Your task to perform on an android device: turn off location Image 0: 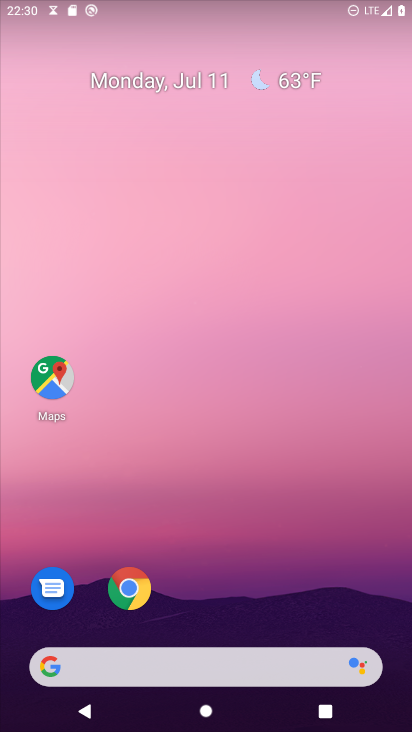
Step 0: press home button
Your task to perform on an android device: turn off location Image 1: 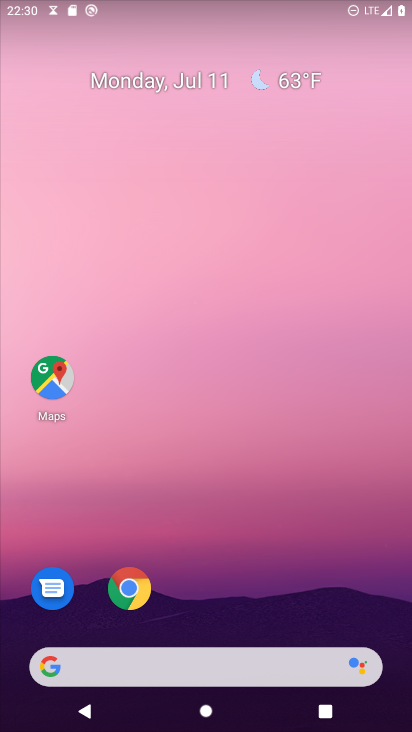
Step 1: drag from (202, 600) to (274, 27)
Your task to perform on an android device: turn off location Image 2: 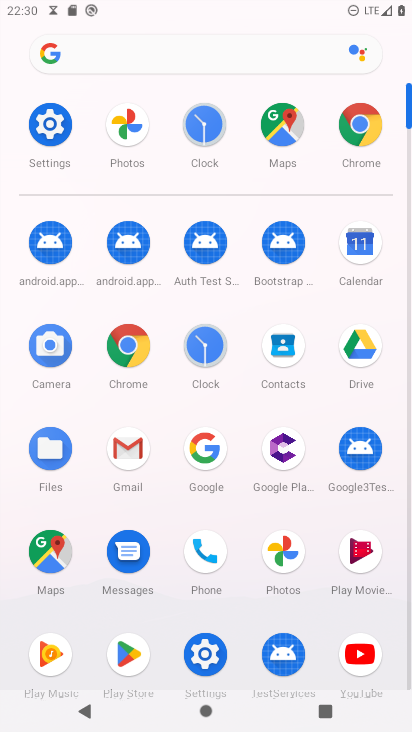
Step 2: click (57, 125)
Your task to perform on an android device: turn off location Image 3: 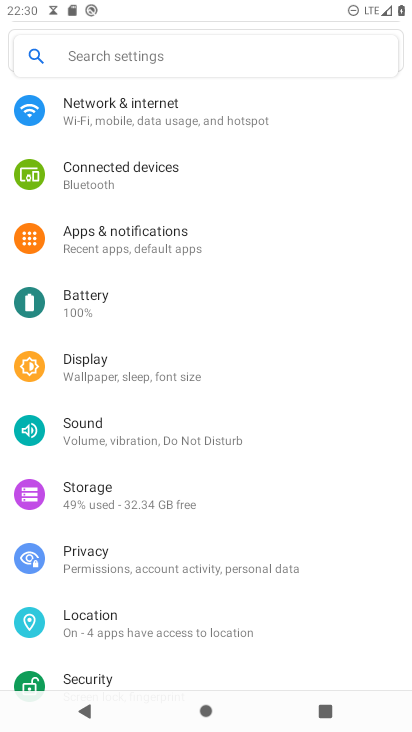
Step 3: click (106, 633)
Your task to perform on an android device: turn off location Image 4: 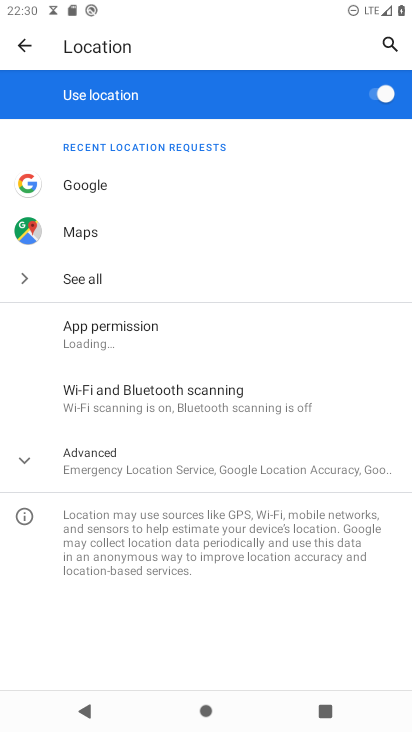
Step 4: click (388, 98)
Your task to perform on an android device: turn off location Image 5: 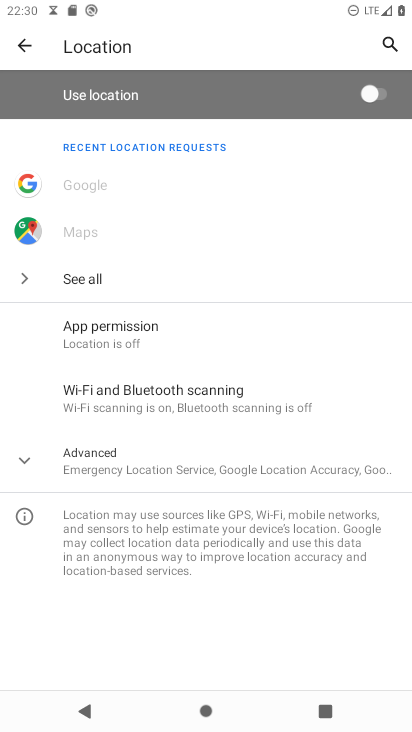
Step 5: task complete